Your task to perform on an android device: Find coffee shops on Maps Image 0: 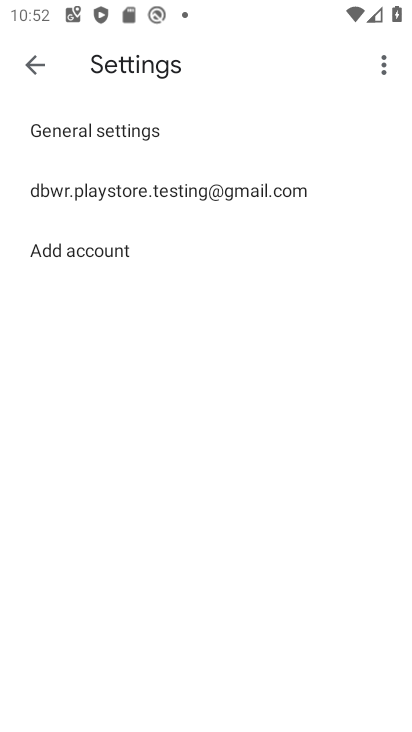
Step 0: press home button
Your task to perform on an android device: Find coffee shops on Maps Image 1: 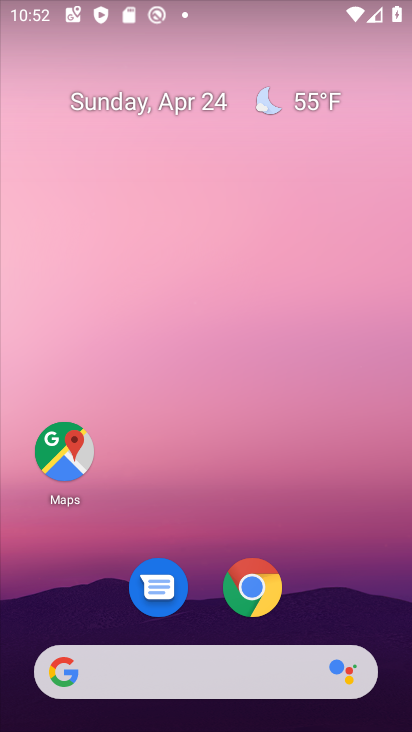
Step 1: drag from (325, 557) to (322, 285)
Your task to perform on an android device: Find coffee shops on Maps Image 2: 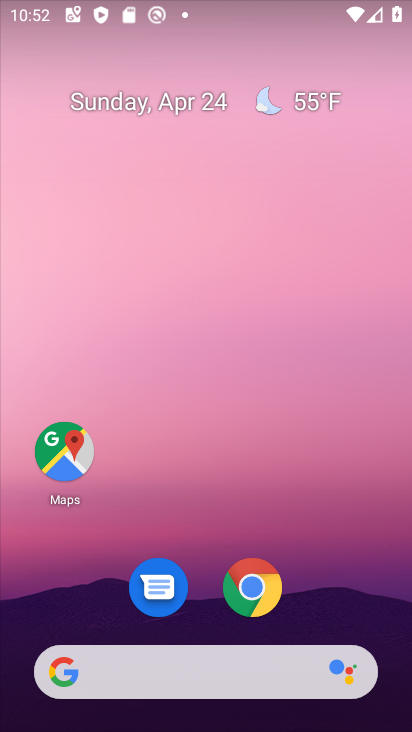
Step 2: drag from (311, 552) to (313, 207)
Your task to perform on an android device: Find coffee shops on Maps Image 3: 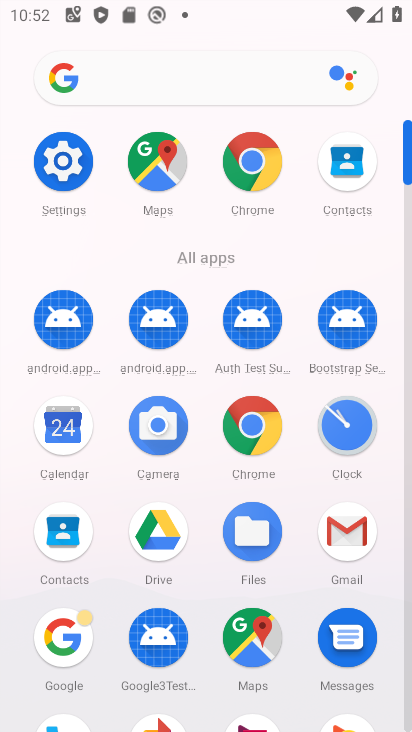
Step 3: click (245, 646)
Your task to perform on an android device: Find coffee shops on Maps Image 4: 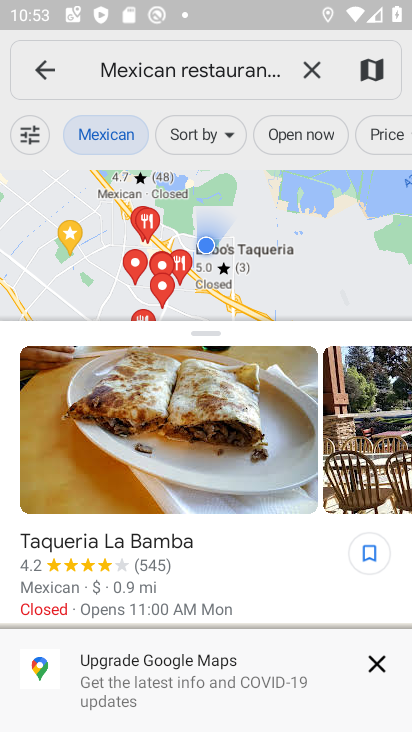
Step 4: click (233, 67)
Your task to perform on an android device: Find coffee shops on Maps Image 5: 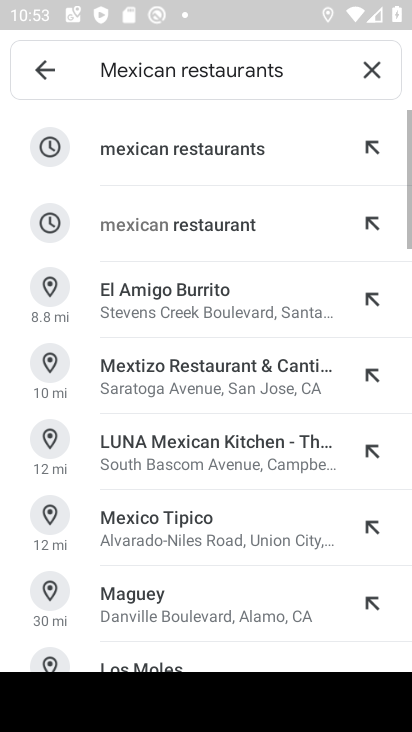
Step 5: click (376, 71)
Your task to perform on an android device: Find coffee shops on Maps Image 6: 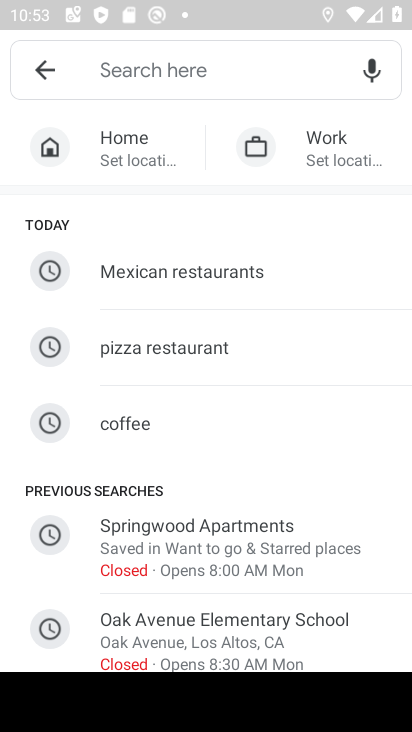
Step 6: type "coffee shops"
Your task to perform on an android device: Find coffee shops on Maps Image 7: 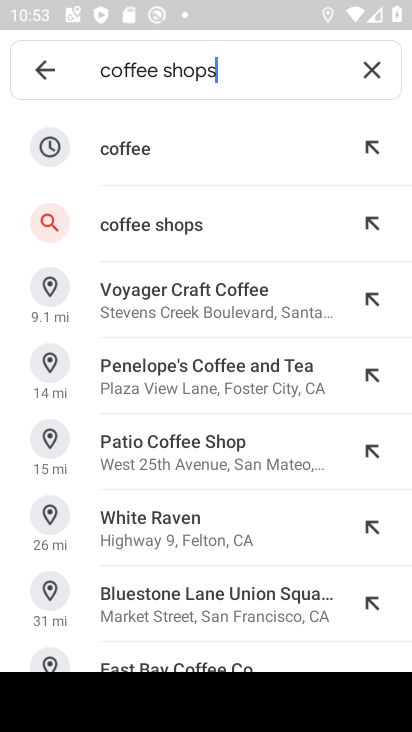
Step 7: click (134, 220)
Your task to perform on an android device: Find coffee shops on Maps Image 8: 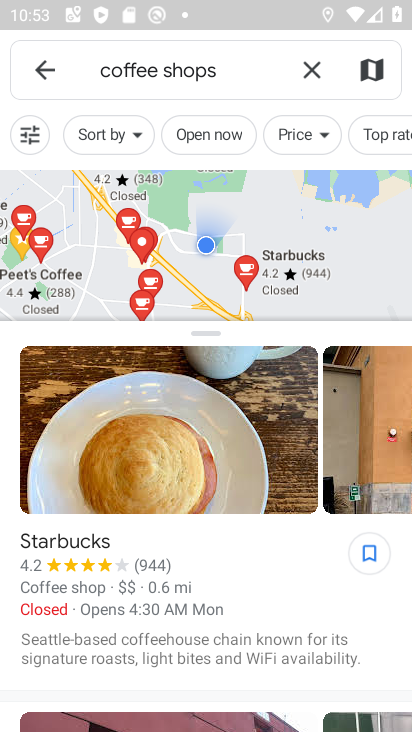
Step 8: task complete